Your task to perform on an android device: When is my next appointment? Image 0: 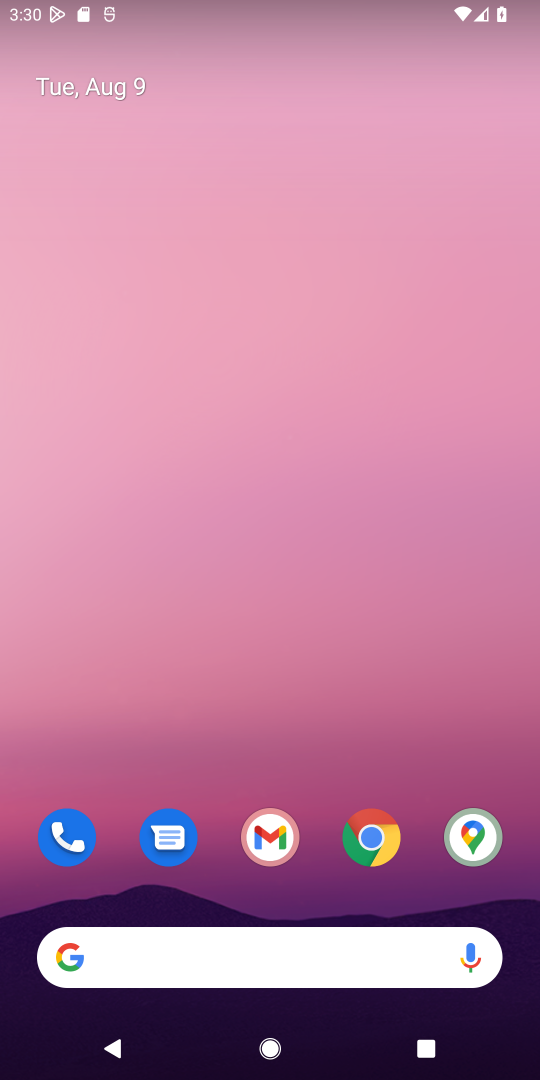
Step 0: drag from (240, 1021) to (262, 404)
Your task to perform on an android device: When is my next appointment? Image 1: 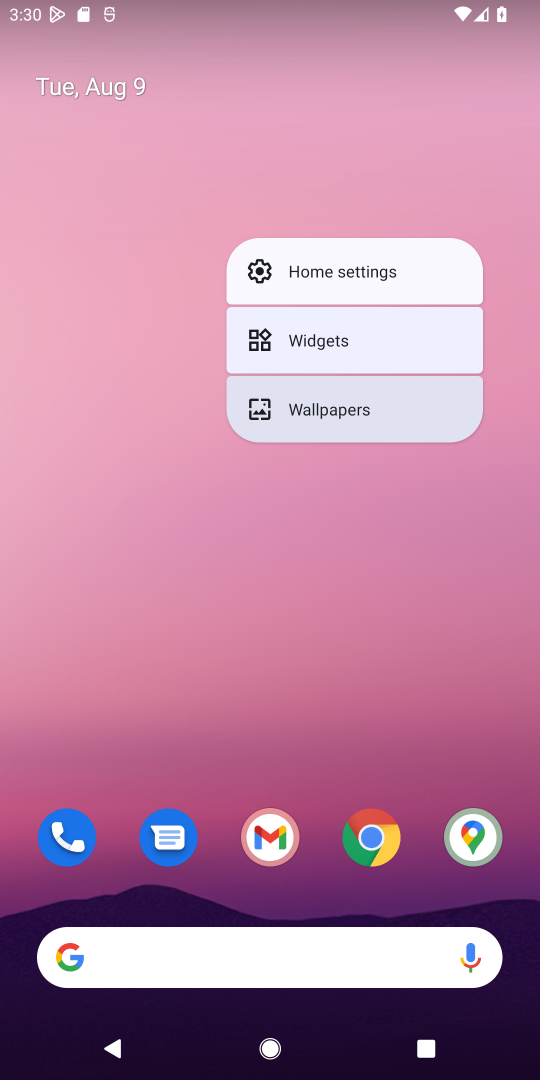
Step 1: click (229, 843)
Your task to perform on an android device: When is my next appointment? Image 2: 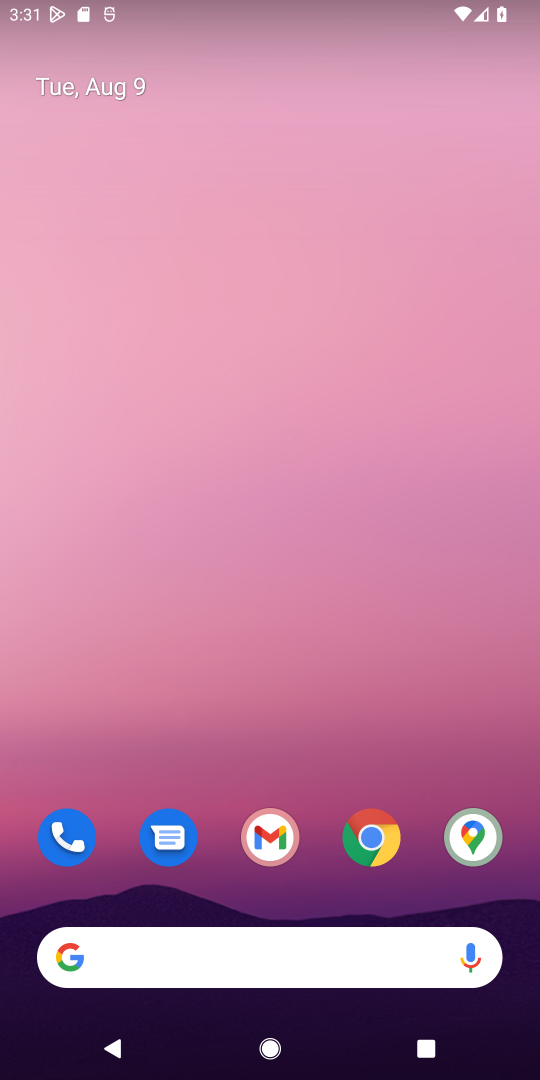
Step 2: drag from (301, 770) to (318, 542)
Your task to perform on an android device: When is my next appointment? Image 3: 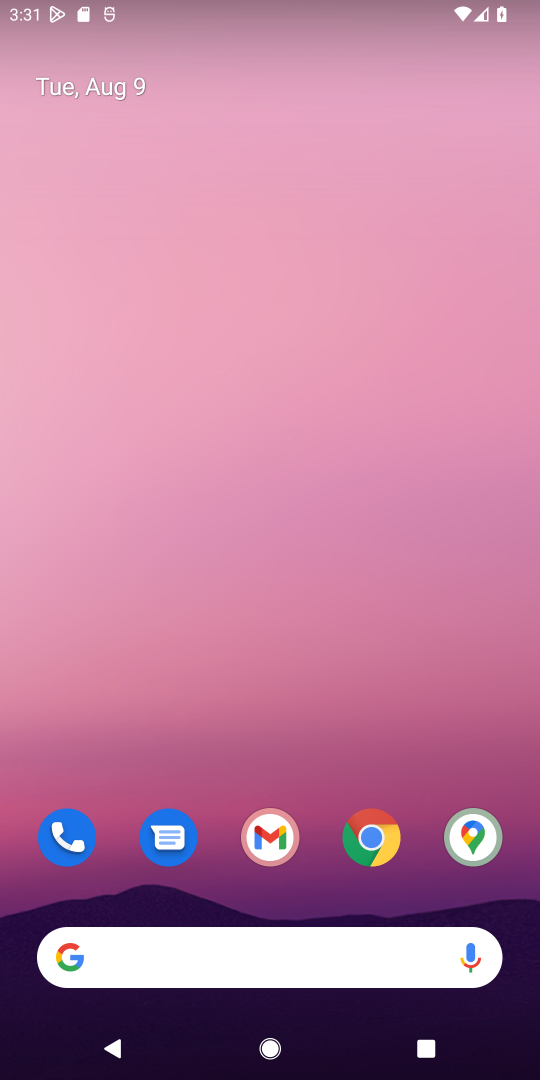
Step 3: drag from (263, 831) to (327, 190)
Your task to perform on an android device: When is my next appointment? Image 4: 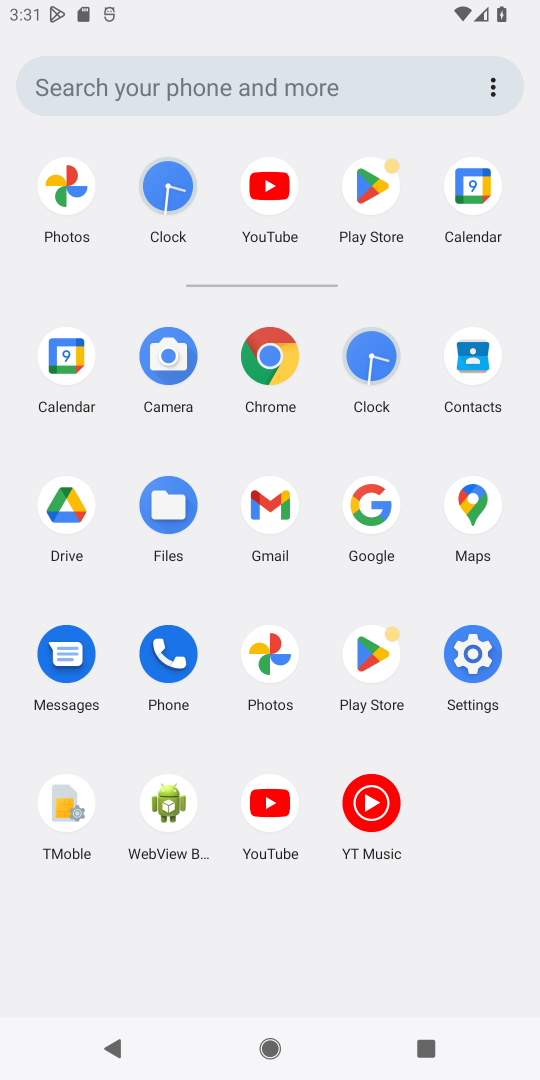
Step 4: click (477, 194)
Your task to perform on an android device: When is my next appointment? Image 5: 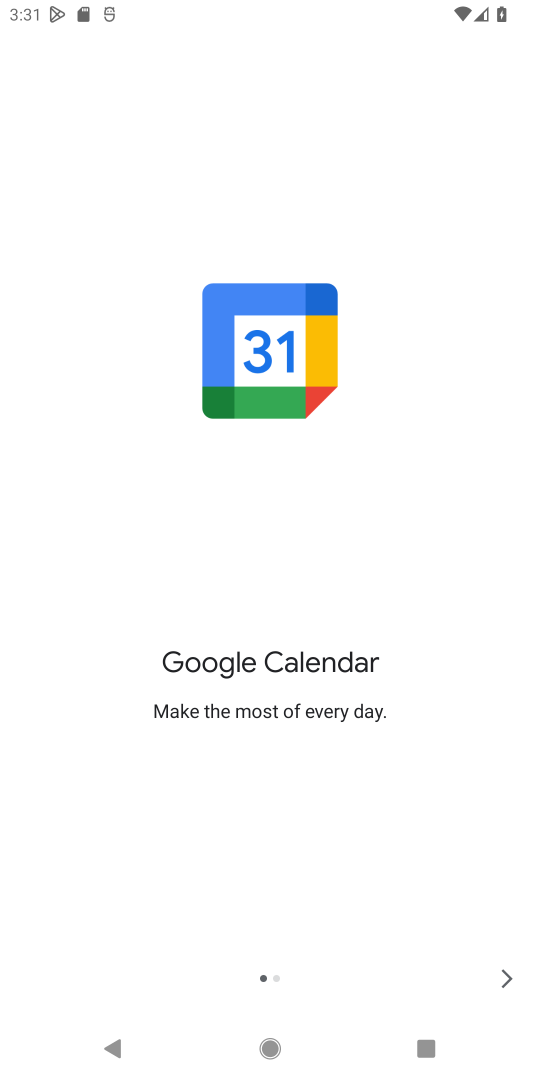
Step 5: click (508, 974)
Your task to perform on an android device: When is my next appointment? Image 6: 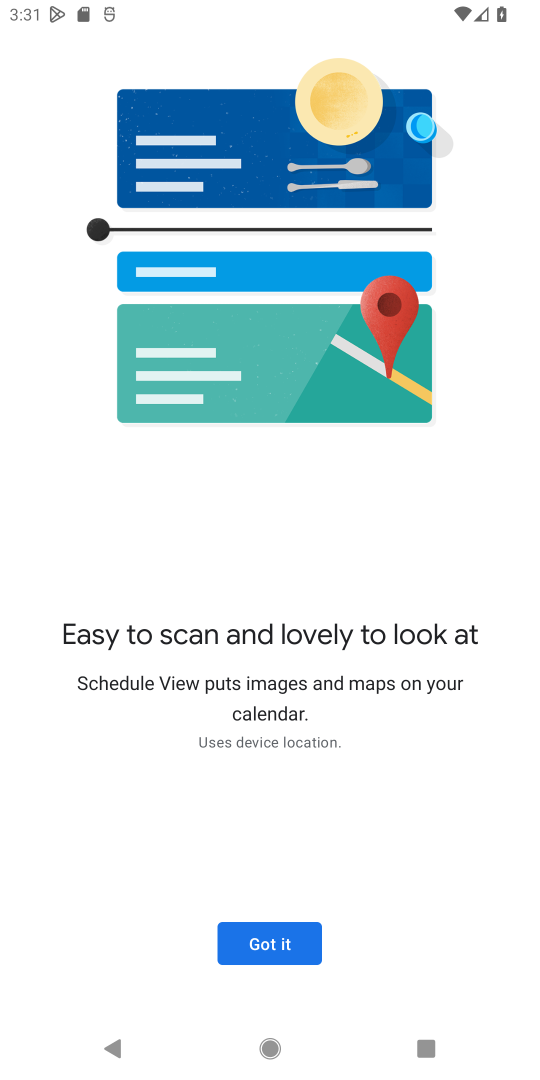
Step 6: click (266, 954)
Your task to perform on an android device: When is my next appointment? Image 7: 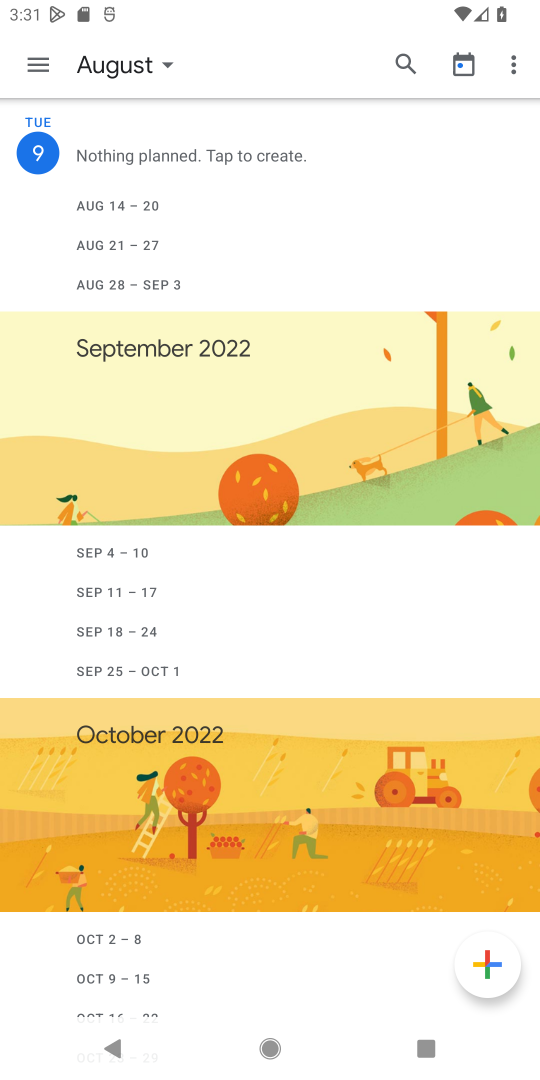
Step 7: click (36, 61)
Your task to perform on an android device: When is my next appointment? Image 8: 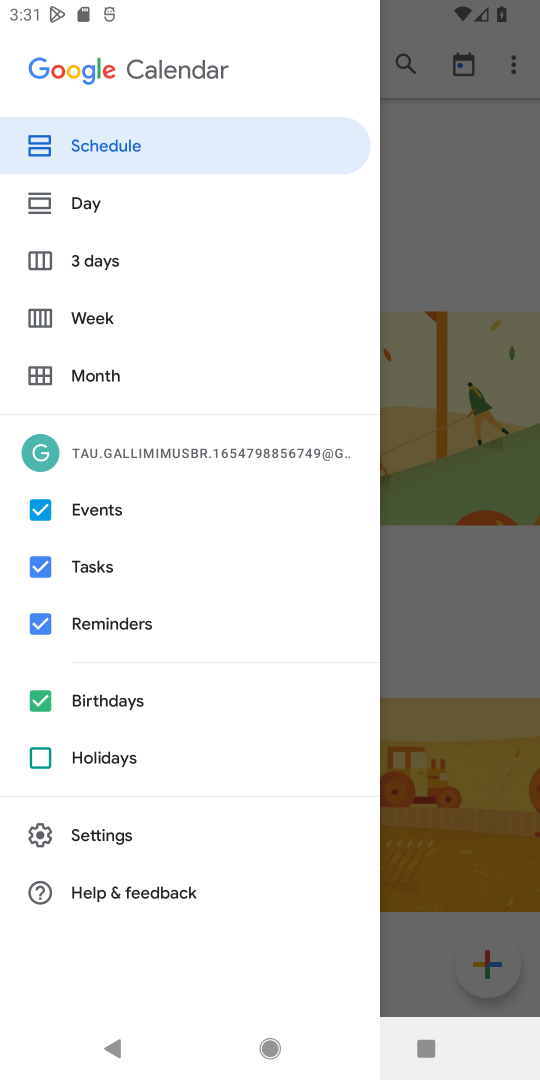
Step 8: click (97, 311)
Your task to perform on an android device: When is my next appointment? Image 9: 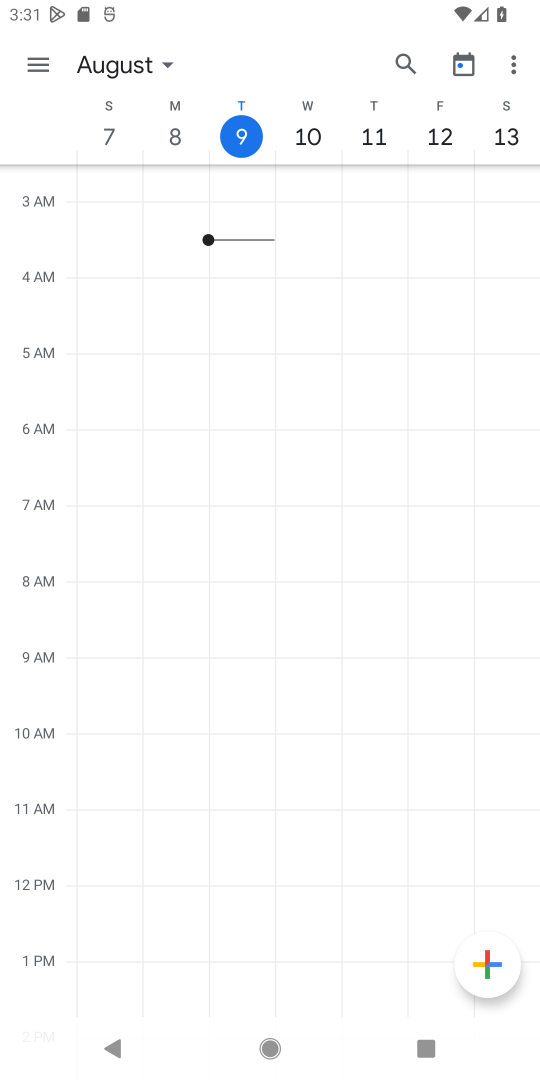
Step 9: click (318, 131)
Your task to perform on an android device: When is my next appointment? Image 10: 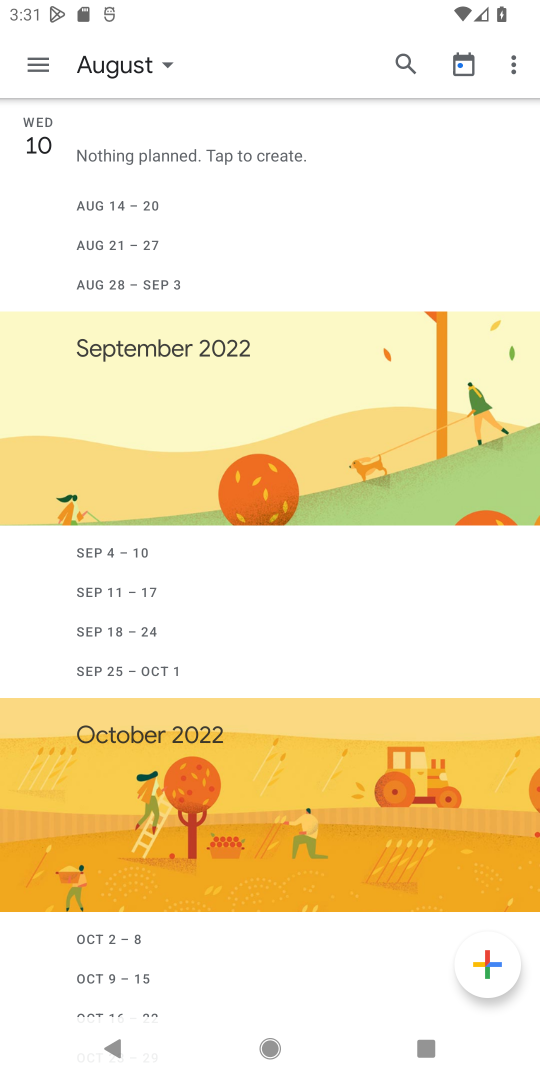
Step 10: task complete